Your task to perform on an android device: turn on airplane mode Image 0: 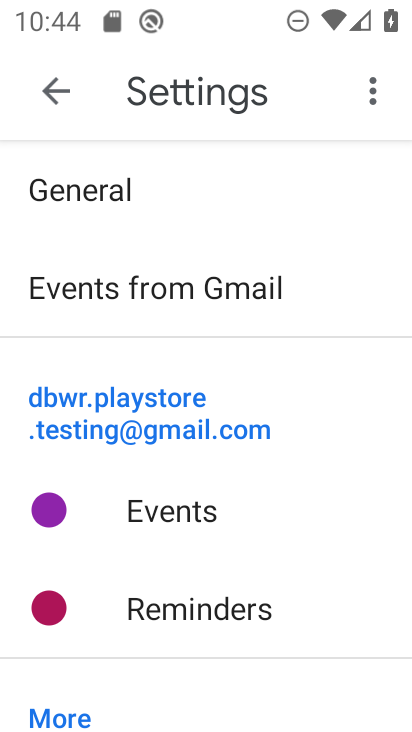
Step 0: press home button
Your task to perform on an android device: turn on airplane mode Image 1: 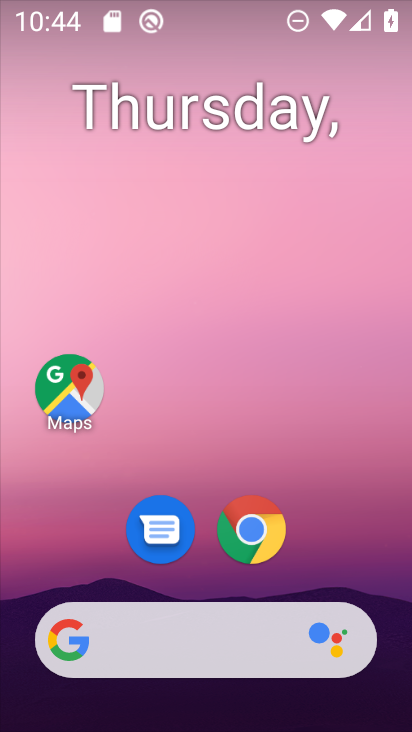
Step 1: drag from (219, 696) to (179, 6)
Your task to perform on an android device: turn on airplane mode Image 2: 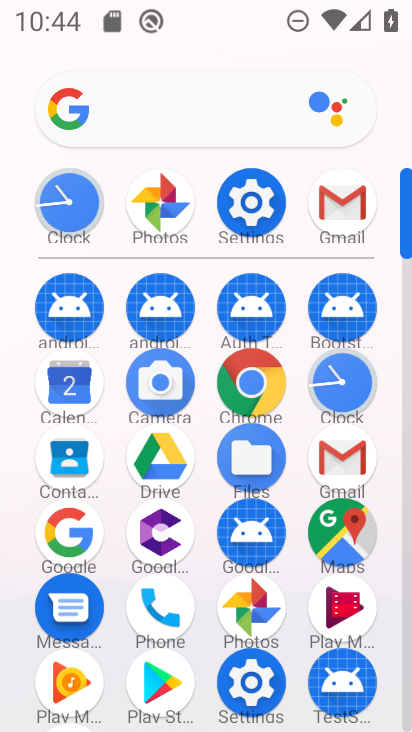
Step 2: click (276, 210)
Your task to perform on an android device: turn on airplane mode Image 3: 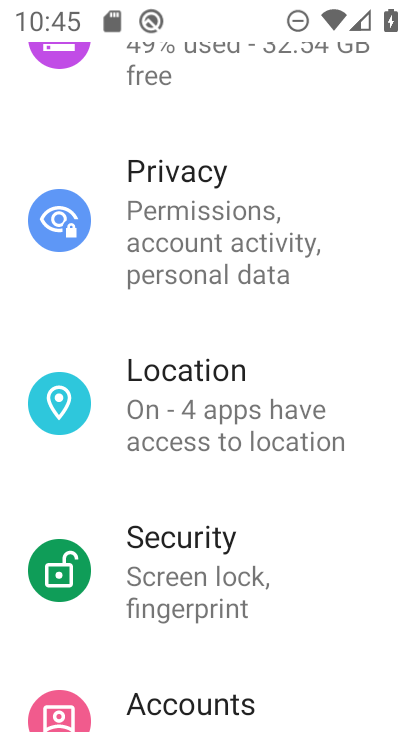
Step 3: drag from (309, 182) to (193, 630)
Your task to perform on an android device: turn on airplane mode Image 4: 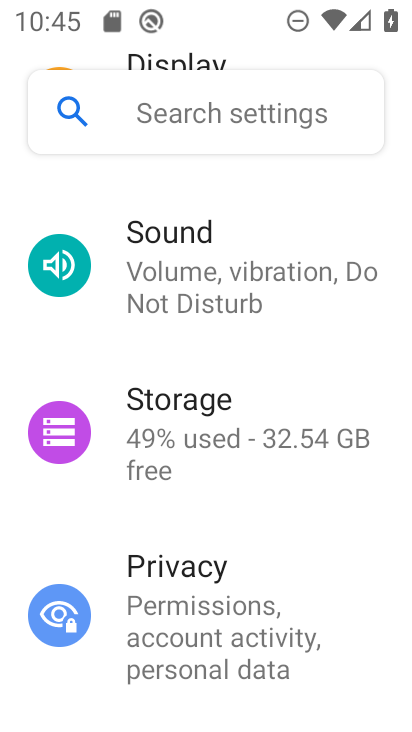
Step 4: drag from (269, 240) to (213, 715)
Your task to perform on an android device: turn on airplane mode Image 5: 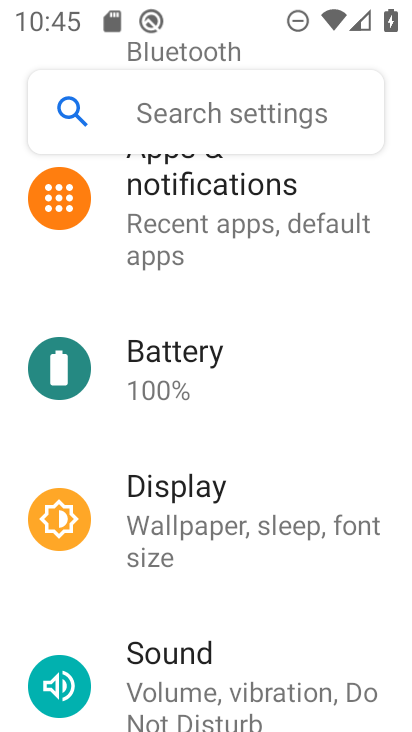
Step 5: drag from (271, 472) to (220, 709)
Your task to perform on an android device: turn on airplane mode Image 6: 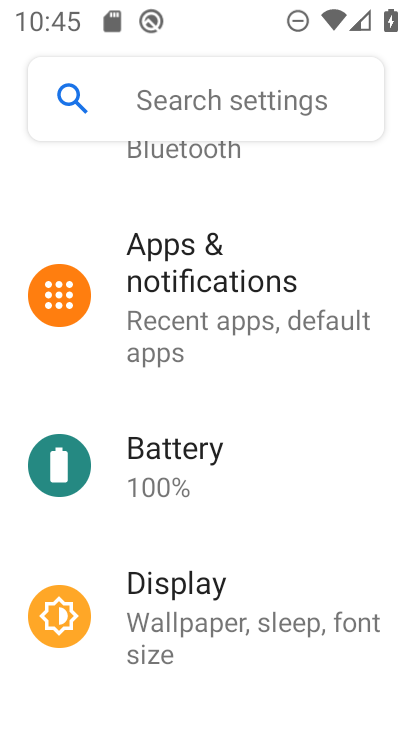
Step 6: drag from (340, 253) to (207, 731)
Your task to perform on an android device: turn on airplane mode Image 7: 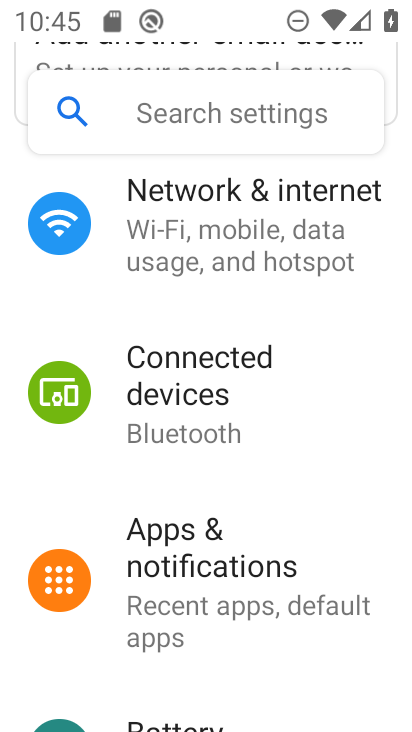
Step 7: click (283, 225)
Your task to perform on an android device: turn on airplane mode Image 8: 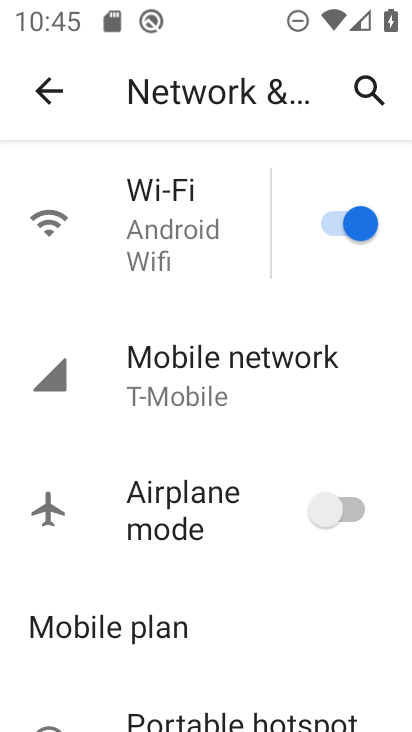
Step 8: click (339, 505)
Your task to perform on an android device: turn on airplane mode Image 9: 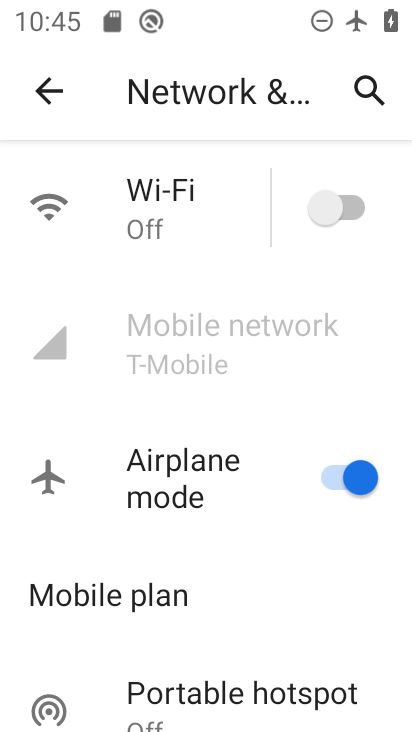
Step 9: task complete